Your task to perform on an android device: Open calendar and show me the first week of next month Image 0: 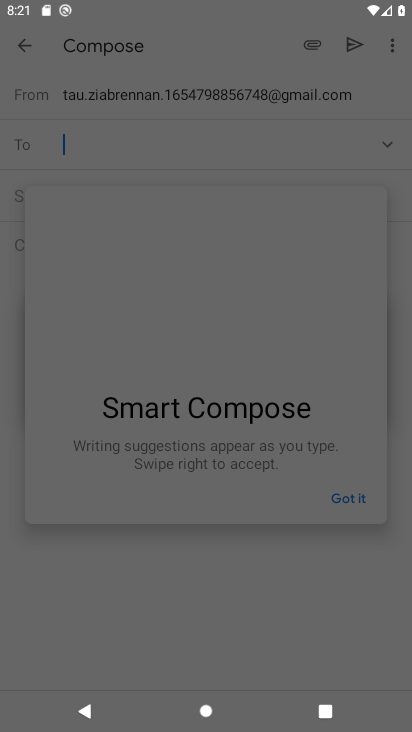
Step 0: press home button
Your task to perform on an android device: Open calendar and show me the first week of next month Image 1: 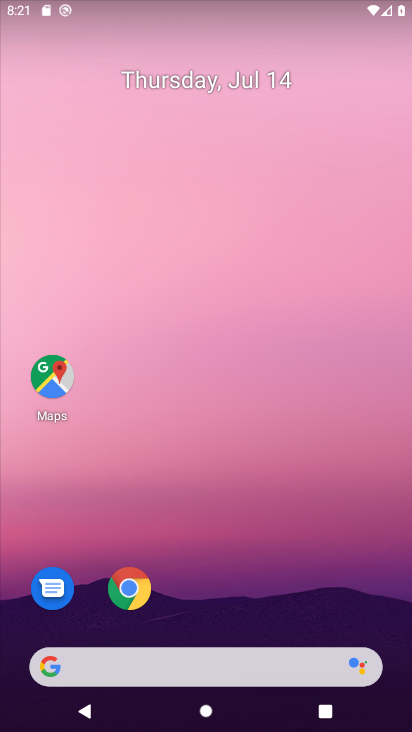
Step 1: drag from (346, 587) to (367, 85)
Your task to perform on an android device: Open calendar and show me the first week of next month Image 2: 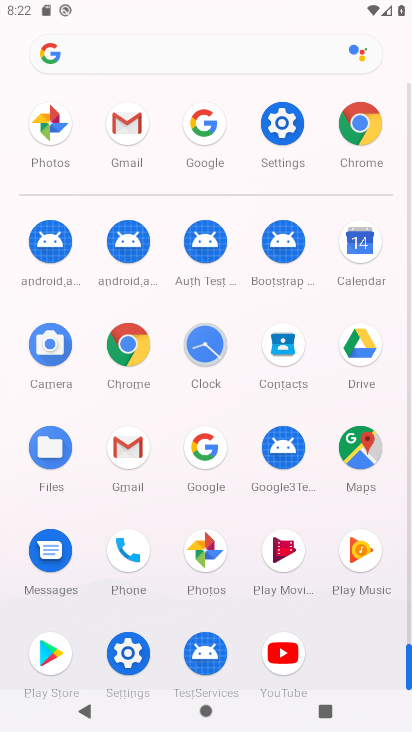
Step 2: click (362, 251)
Your task to perform on an android device: Open calendar and show me the first week of next month Image 3: 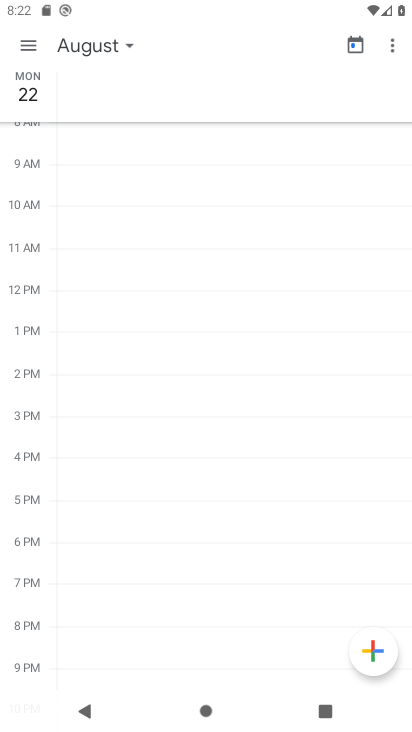
Step 3: click (127, 49)
Your task to perform on an android device: Open calendar and show me the first week of next month Image 4: 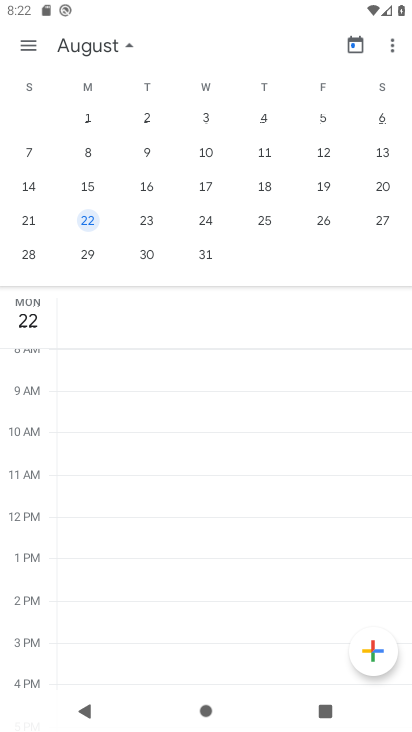
Step 4: click (88, 109)
Your task to perform on an android device: Open calendar and show me the first week of next month Image 5: 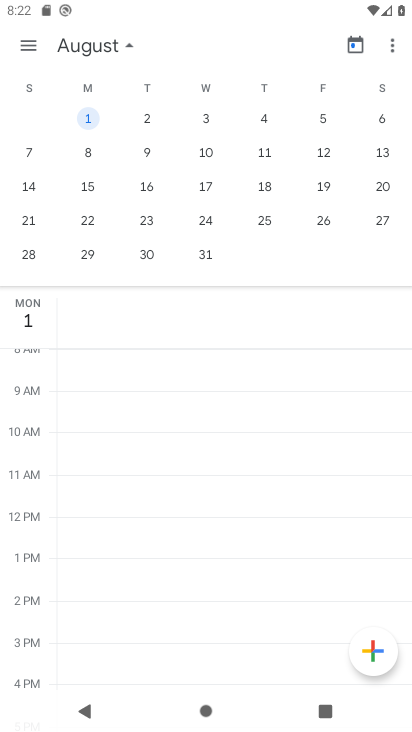
Step 5: task complete